Your task to perform on an android device: Do I have any events tomorrow? Image 0: 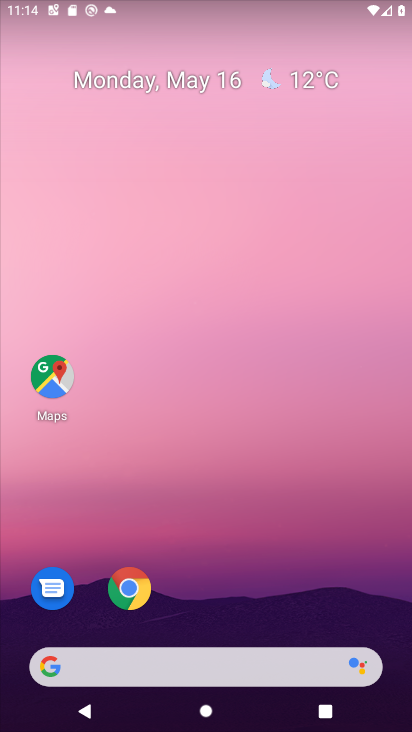
Step 0: drag from (225, 589) to (216, 73)
Your task to perform on an android device: Do I have any events tomorrow? Image 1: 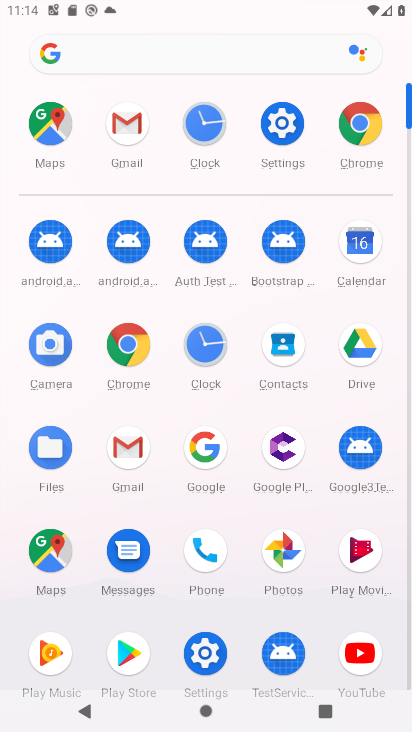
Step 1: click (370, 238)
Your task to perform on an android device: Do I have any events tomorrow? Image 2: 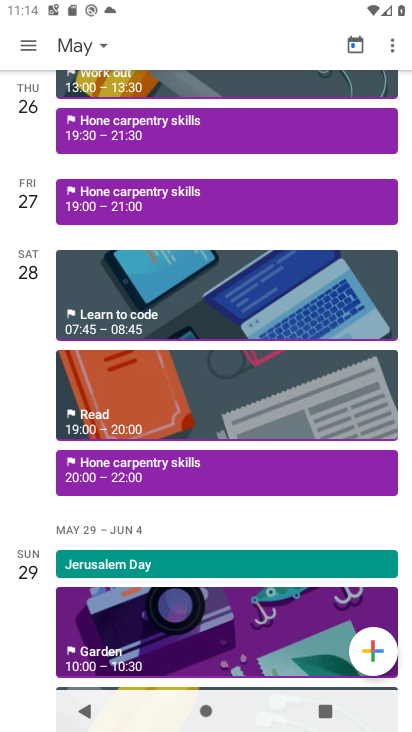
Step 2: drag from (31, 120) to (33, 703)
Your task to perform on an android device: Do I have any events tomorrow? Image 3: 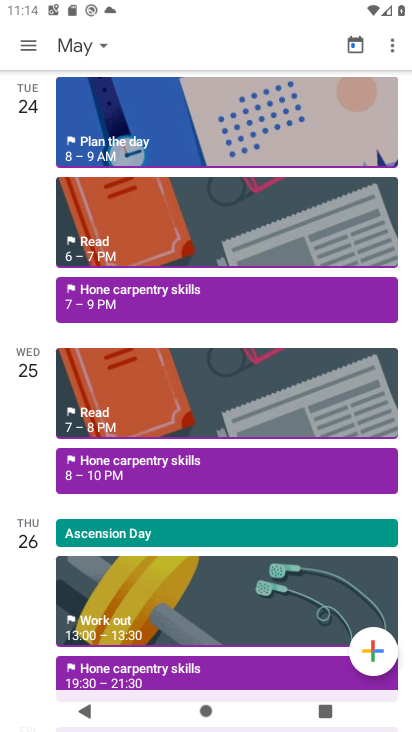
Step 3: drag from (31, 107) to (10, 731)
Your task to perform on an android device: Do I have any events tomorrow? Image 4: 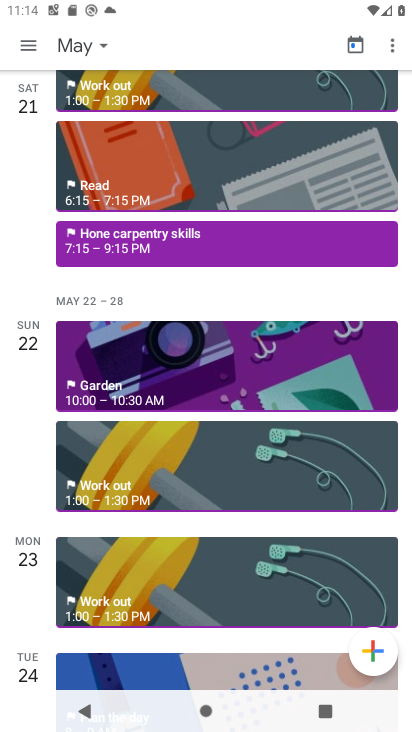
Step 4: drag from (32, 135) to (22, 728)
Your task to perform on an android device: Do I have any events tomorrow? Image 5: 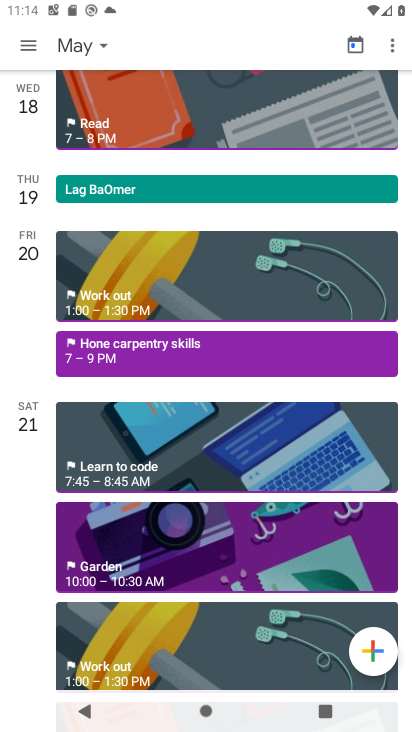
Step 5: drag from (30, 129) to (44, 684)
Your task to perform on an android device: Do I have any events tomorrow? Image 6: 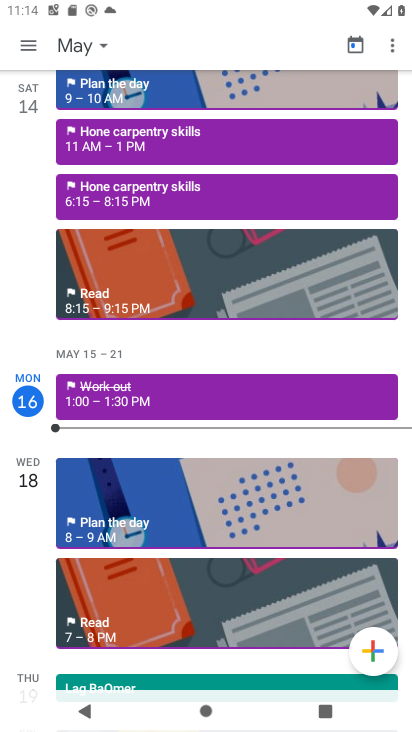
Step 6: drag from (21, 578) to (44, 264)
Your task to perform on an android device: Do I have any events tomorrow? Image 7: 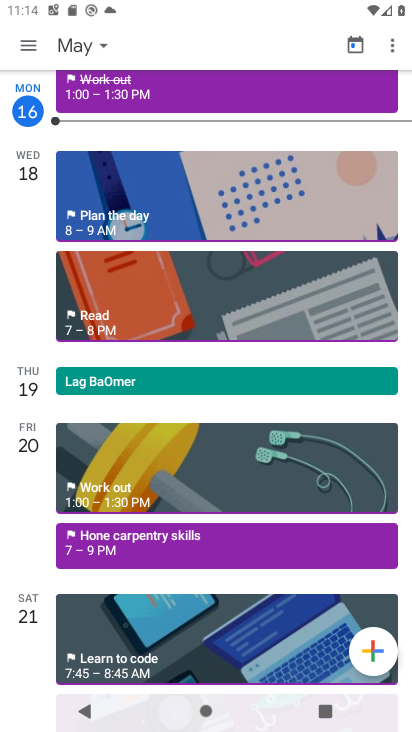
Step 7: click (34, 208)
Your task to perform on an android device: Do I have any events tomorrow? Image 8: 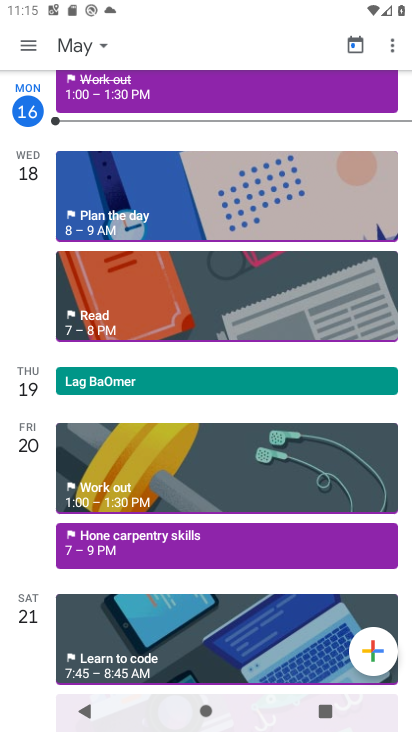
Step 8: click (32, 121)
Your task to perform on an android device: Do I have any events tomorrow? Image 9: 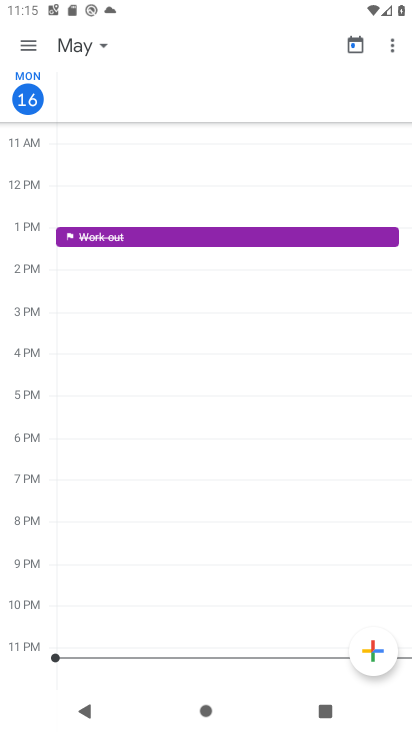
Step 9: click (34, 86)
Your task to perform on an android device: Do I have any events tomorrow? Image 10: 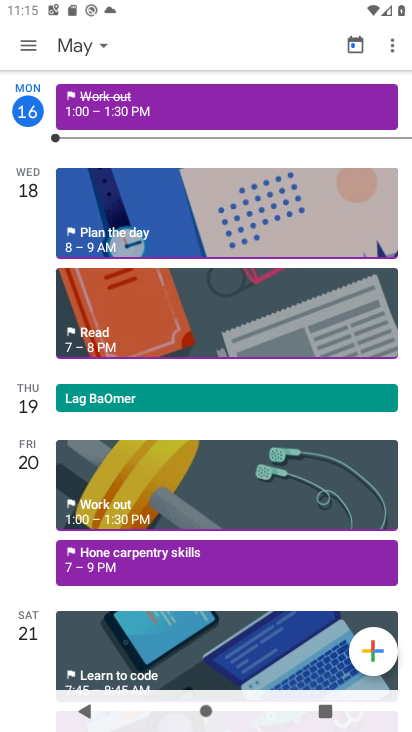
Step 10: click (98, 43)
Your task to perform on an android device: Do I have any events tomorrow? Image 11: 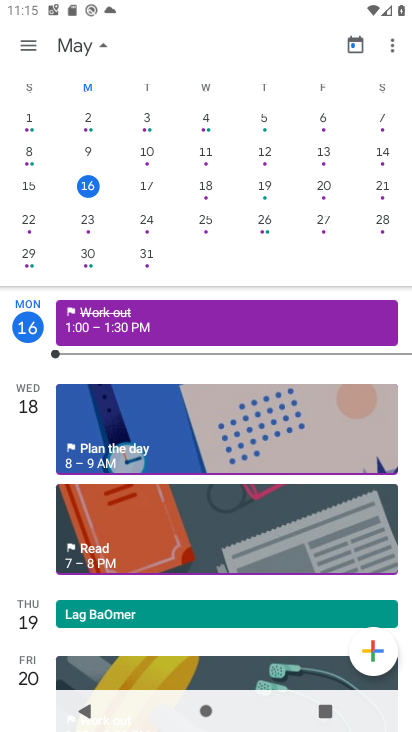
Step 11: click (142, 181)
Your task to perform on an android device: Do I have any events tomorrow? Image 12: 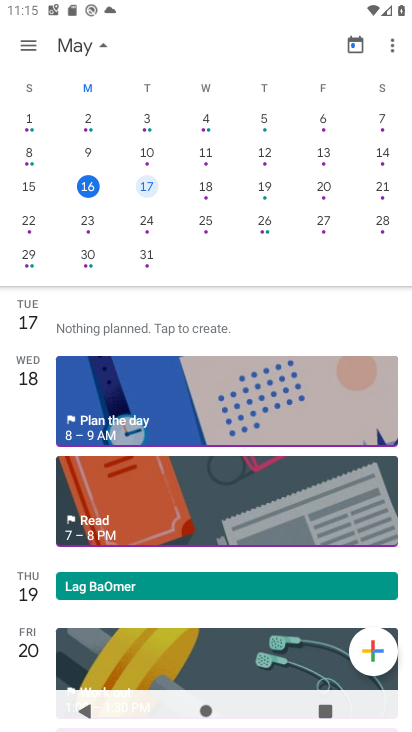
Step 12: click (36, 329)
Your task to perform on an android device: Do I have any events tomorrow? Image 13: 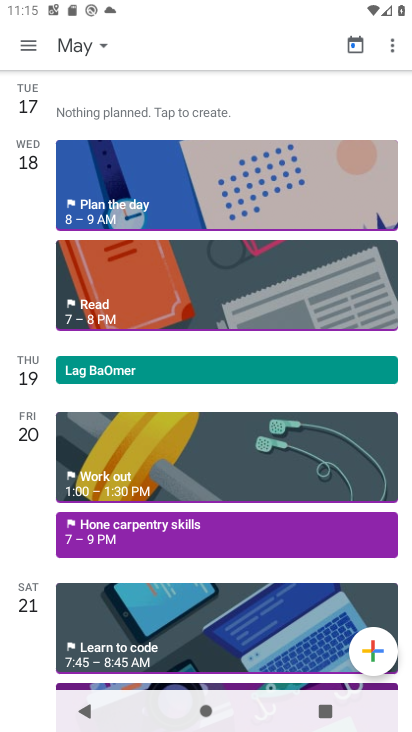
Step 13: task complete